Your task to perform on an android device: open sync settings in chrome Image 0: 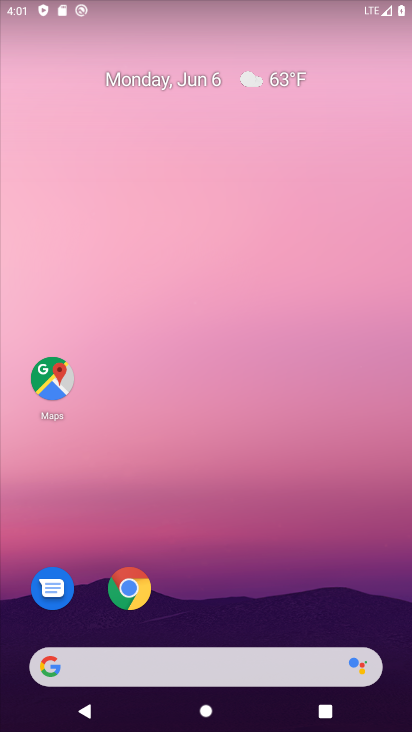
Step 0: drag from (251, 563) to (245, 168)
Your task to perform on an android device: open sync settings in chrome Image 1: 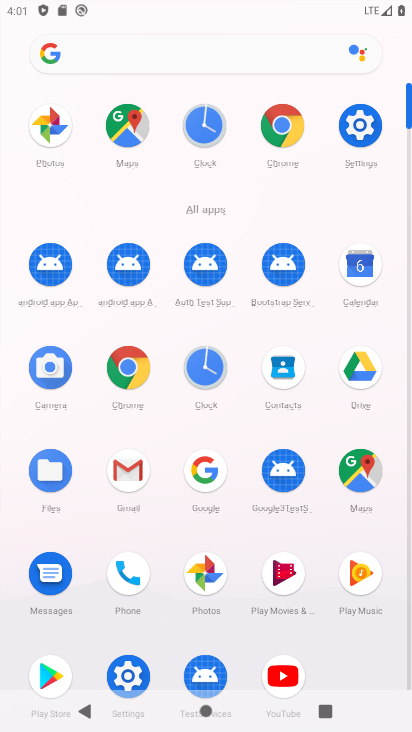
Step 1: click (279, 119)
Your task to perform on an android device: open sync settings in chrome Image 2: 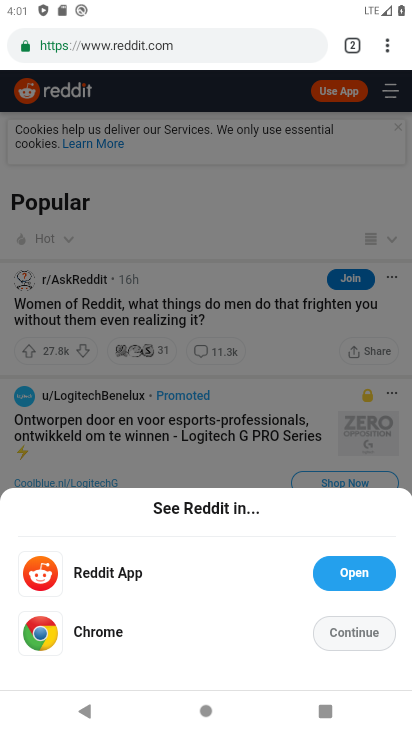
Step 2: press back button
Your task to perform on an android device: open sync settings in chrome Image 3: 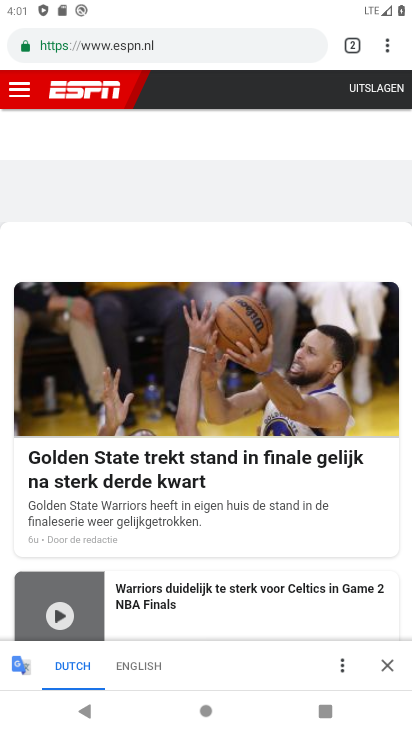
Step 3: drag from (386, 47) to (231, 605)
Your task to perform on an android device: open sync settings in chrome Image 4: 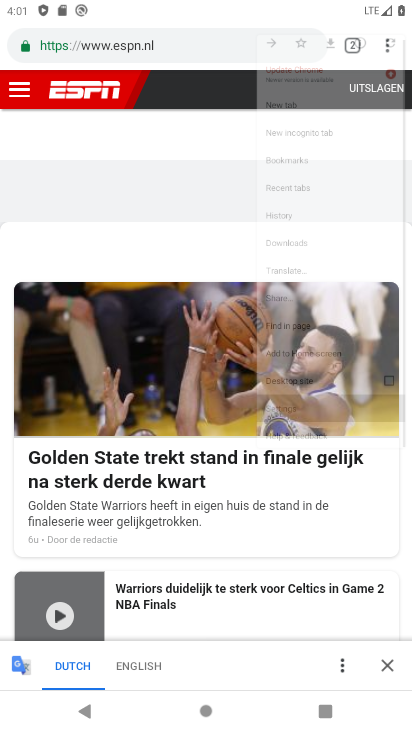
Step 4: click (231, 605)
Your task to perform on an android device: open sync settings in chrome Image 5: 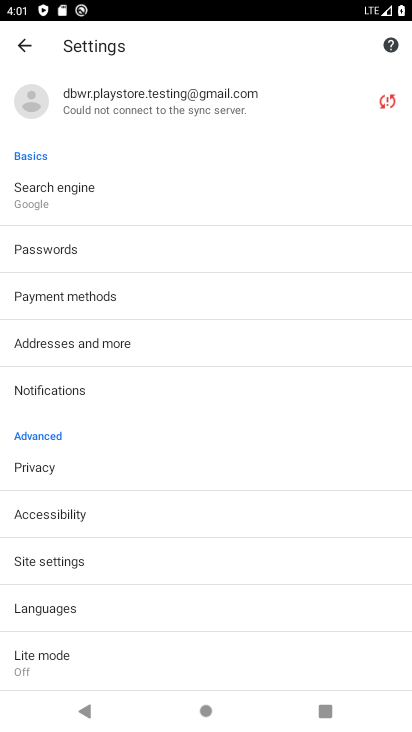
Step 5: drag from (94, 541) to (41, 166)
Your task to perform on an android device: open sync settings in chrome Image 6: 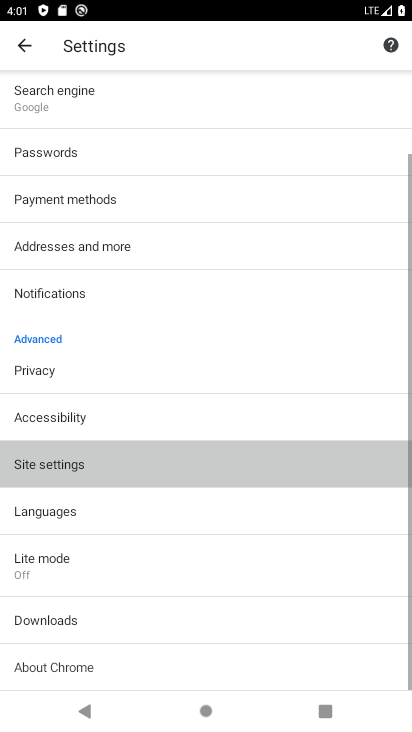
Step 6: drag from (81, 386) to (99, 278)
Your task to perform on an android device: open sync settings in chrome Image 7: 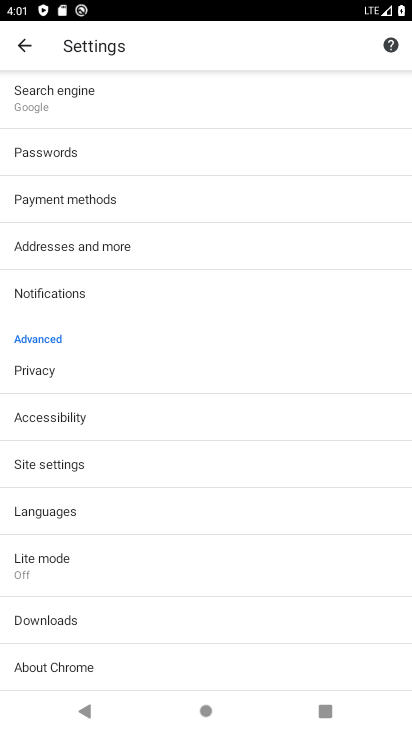
Step 7: click (43, 461)
Your task to perform on an android device: open sync settings in chrome Image 8: 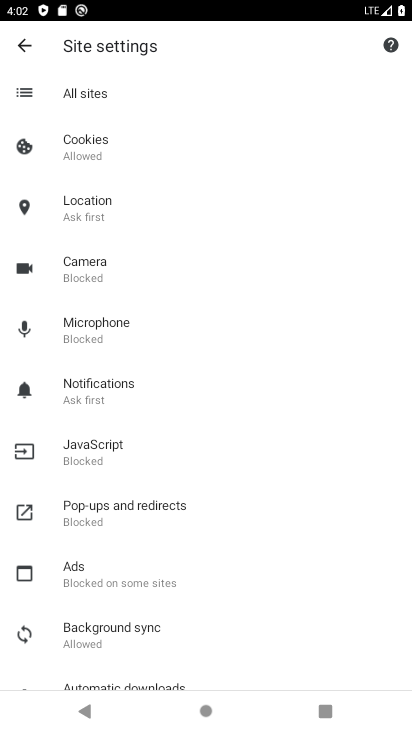
Step 8: click (98, 626)
Your task to perform on an android device: open sync settings in chrome Image 9: 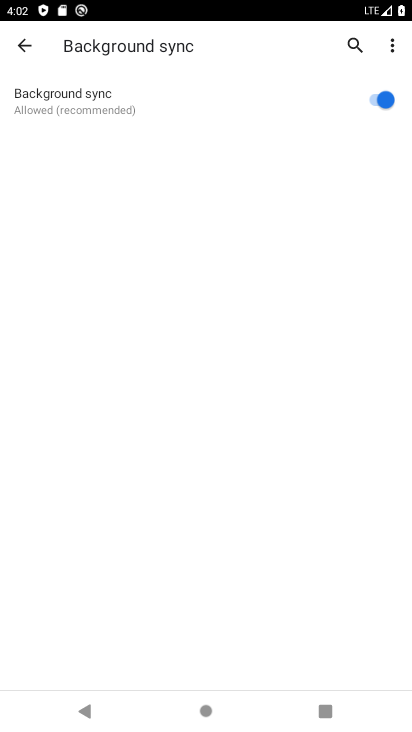
Step 9: task complete